Your task to perform on an android device: Show me recent news Image 0: 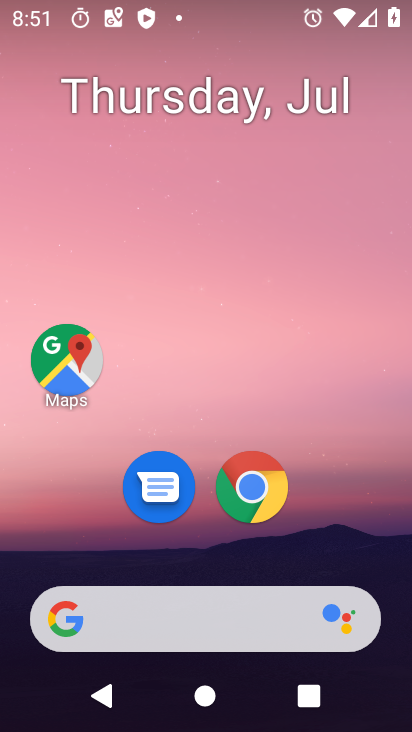
Step 0: drag from (299, 627) to (308, 153)
Your task to perform on an android device: Show me recent news Image 1: 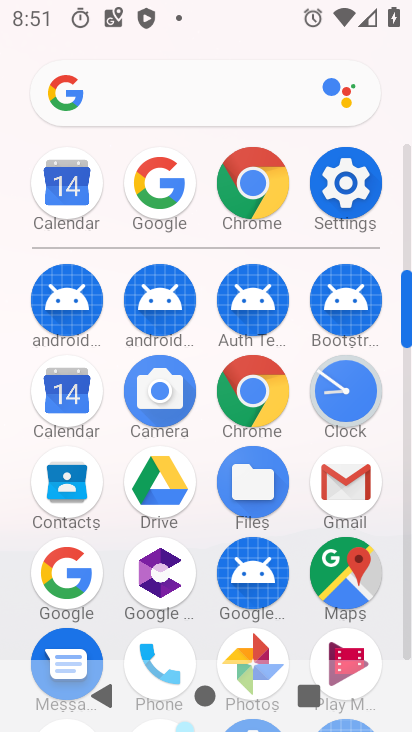
Step 1: click (74, 588)
Your task to perform on an android device: Show me recent news Image 2: 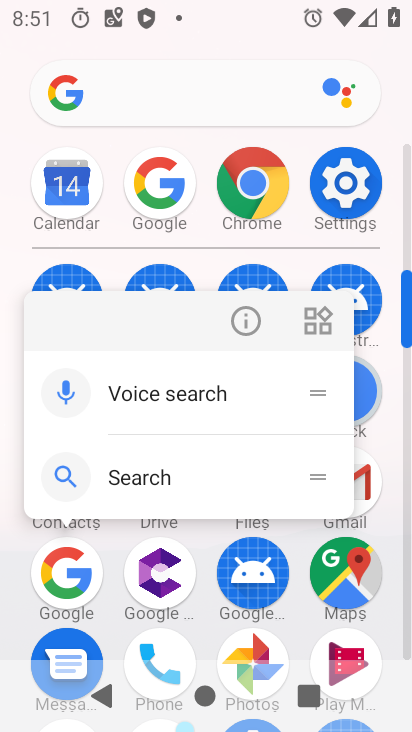
Step 2: click (72, 580)
Your task to perform on an android device: Show me recent news Image 3: 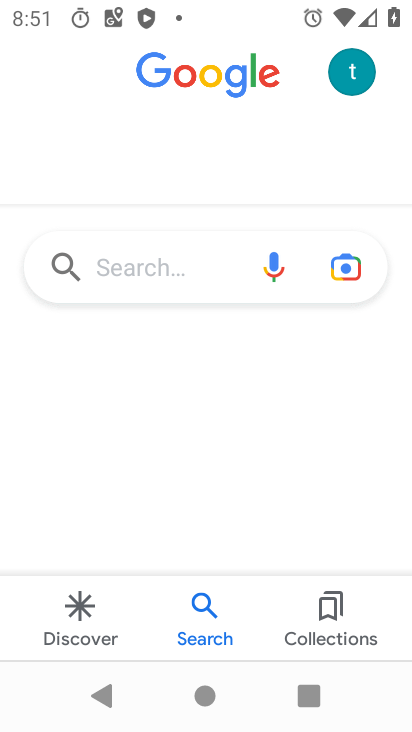
Step 3: click (182, 280)
Your task to perform on an android device: Show me recent news Image 4: 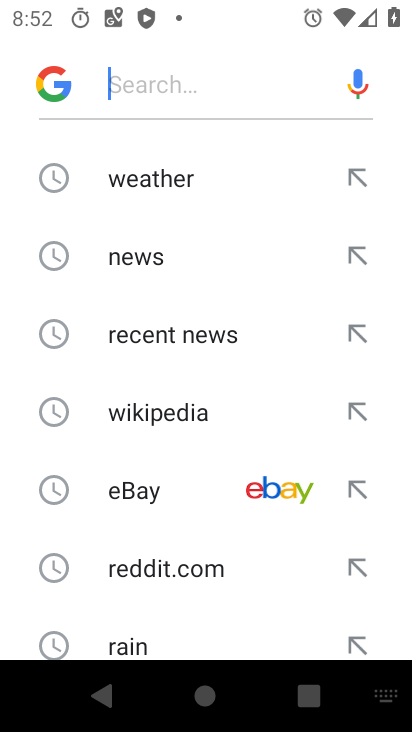
Step 4: click (192, 316)
Your task to perform on an android device: Show me recent news Image 5: 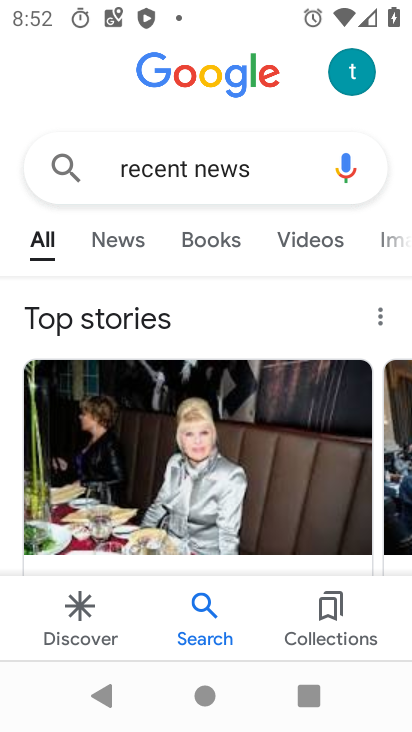
Step 5: click (130, 246)
Your task to perform on an android device: Show me recent news Image 6: 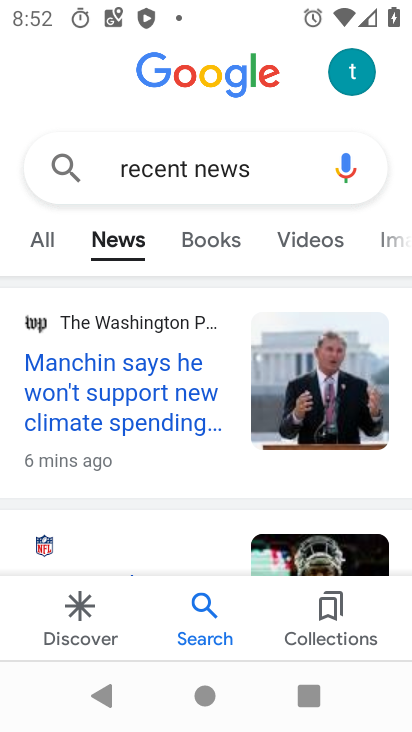
Step 6: task complete